Your task to perform on an android device: check data usage Image 0: 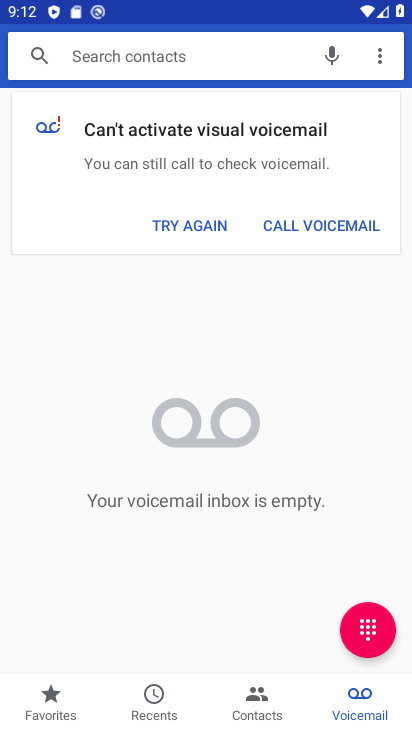
Step 0: press home button
Your task to perform on an android device: check data usage Image 1: 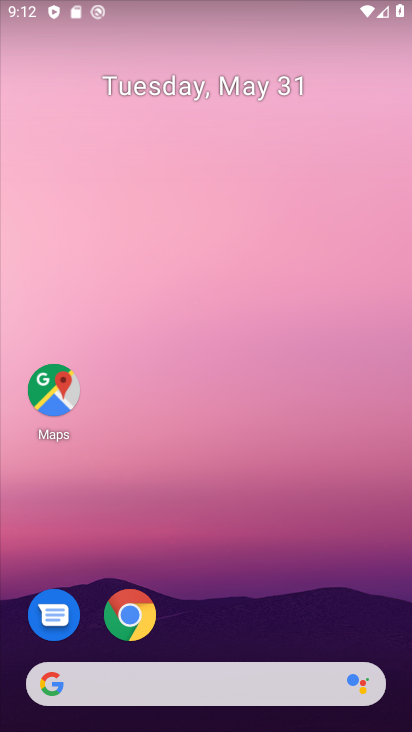
Step 1: drag from (341, 581) to (353, 109)
Your task to perform on an android device: check data usage Image 2: 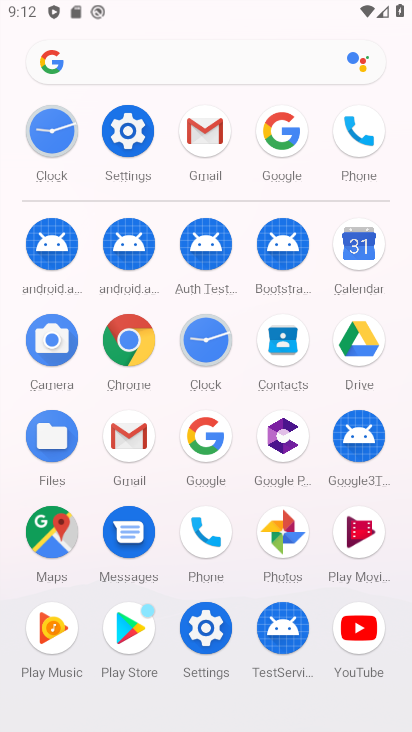
Step 2: click (129, 144)
Your task to perform on an android device: check data usage Image 3: 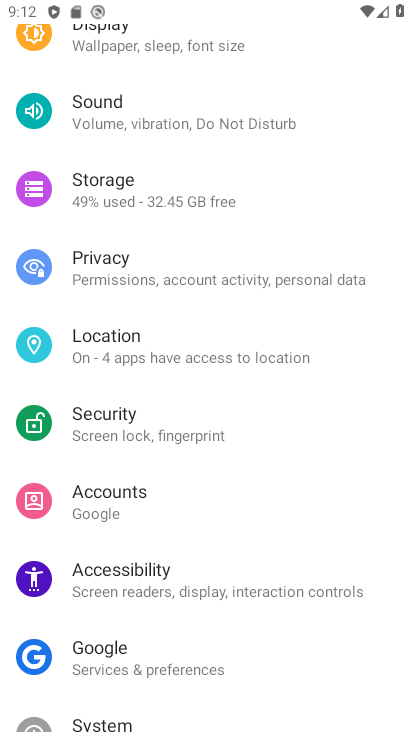
Step 3: drag from (367, 35) to (319, 543)
Your task to perform on an android device: check data usage Image 4: 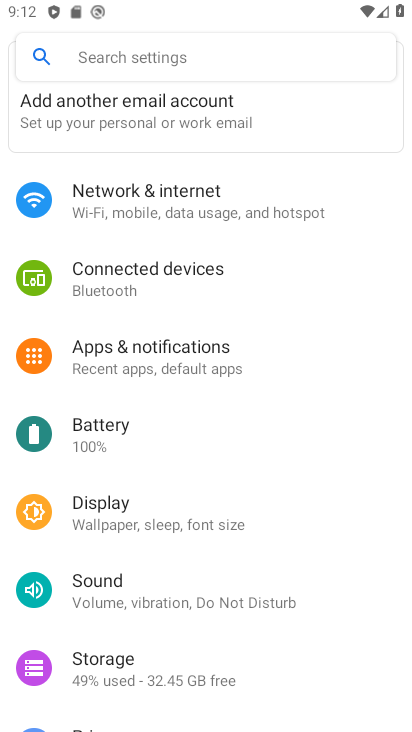
Step 4: click (182, 190)
Your task to perform on an android device: check data usage Image 5: 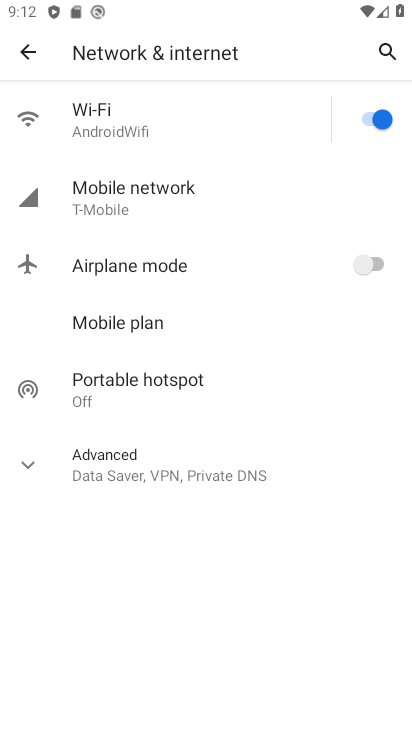
Step 5: click (182, 190)
Your task to perform on an android device: check data usage Image 6: 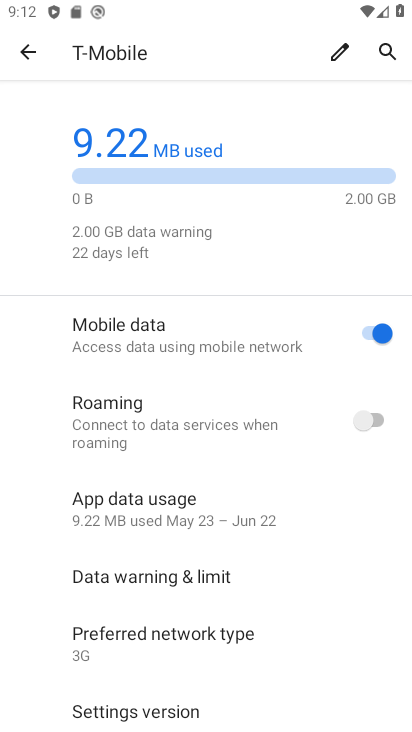
Step 6: task complete